Your task to perform on an android device: Go to Yahoo.com Image 0: 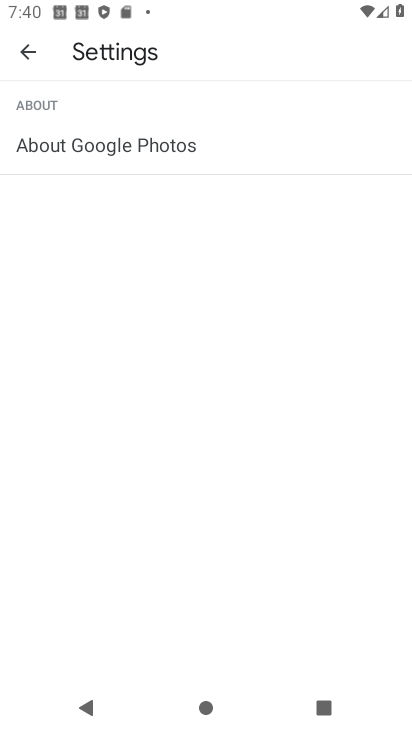
Step 0: press home button
Your task to perform on an android device: Go to Yahoo.com Image 1: 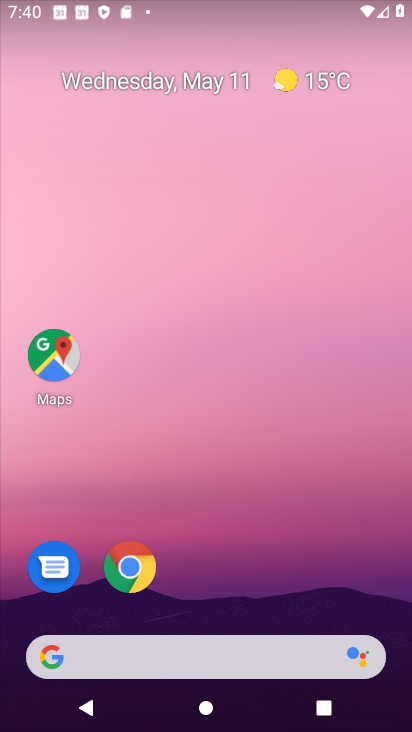
Step 1: drag from (153, 656) to (316, 188)
Your task to perform on an android device: Go to Yahoo.com Image 2: 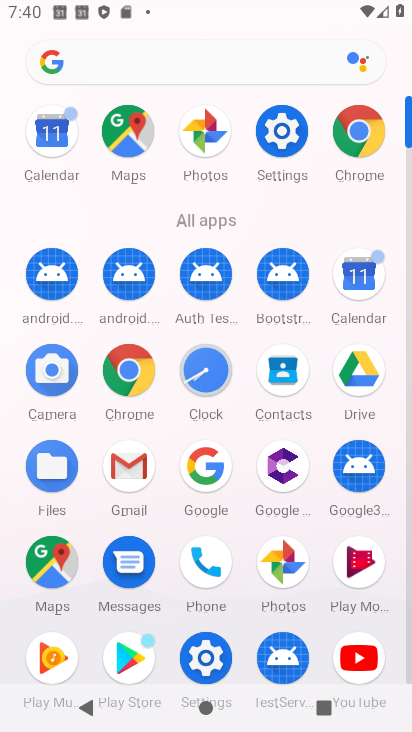
Step 2: click (360, 141)
Your task to perform on an android device: Go to Yahoo.com Image 3: 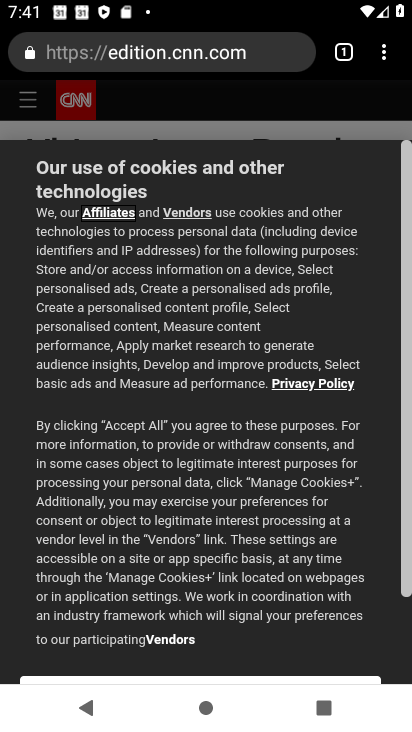
Step 3: drag from (387, 61) to (284, 107)
Your task to perform on an android device: Go to Yahoo.com Image 4: 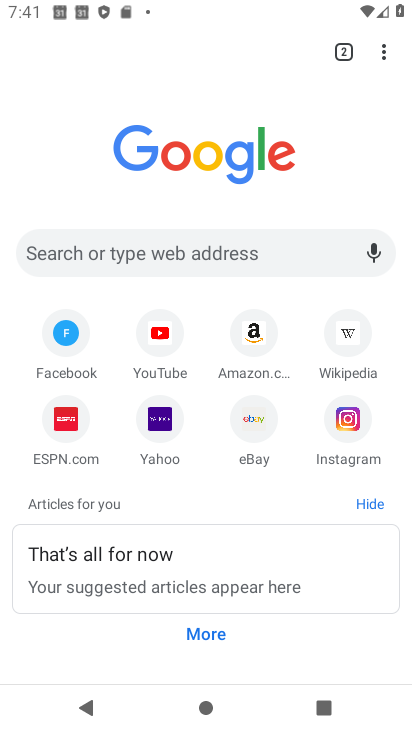
Step 4: click (163, 424)
Your task to perform on an android device: Go to Yahoo.com Image 5: 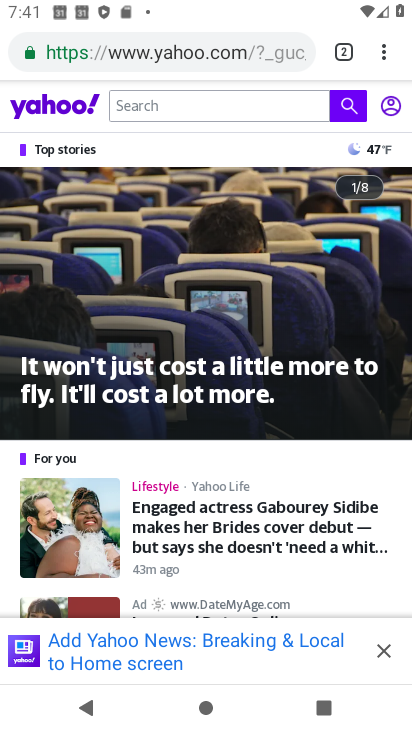
Step 5: task complete